Your task to perform on an android device: Go to sound settings Image 0: 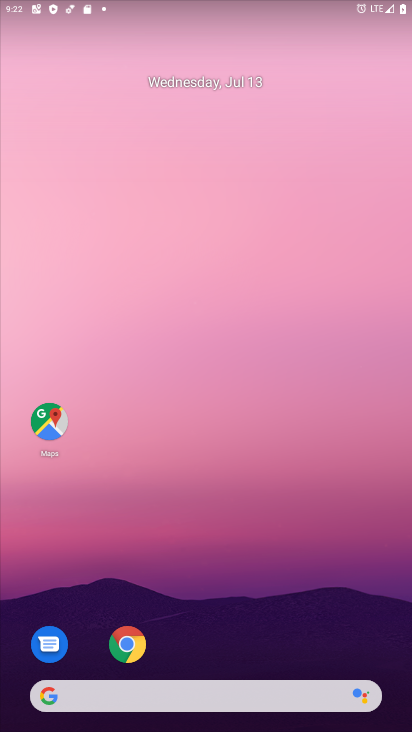
Step 0: drag from (180, 691) to (164, 206)
Your task to perform on an android device: Go to sound settings Image 1: 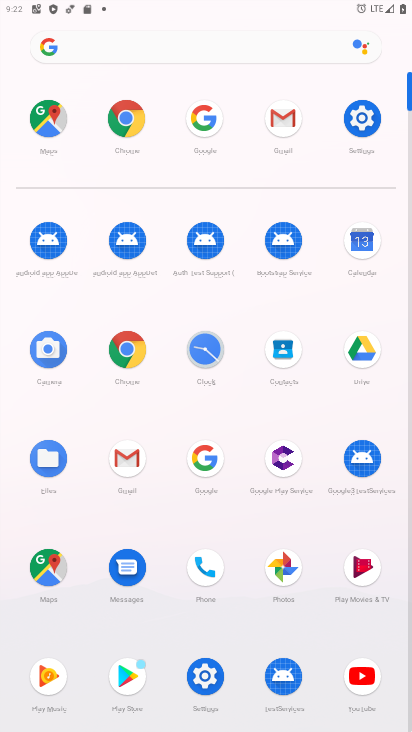
Step 1: click (360, 117)
Your task to perform on an android device: Go to sound settings Image 2: 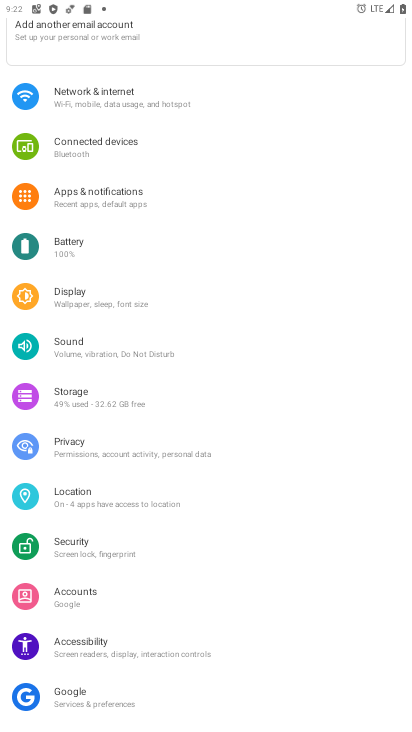
Step 2: click (79, 346)
Your task to perform on an android device: Go to sound settings Image 3: 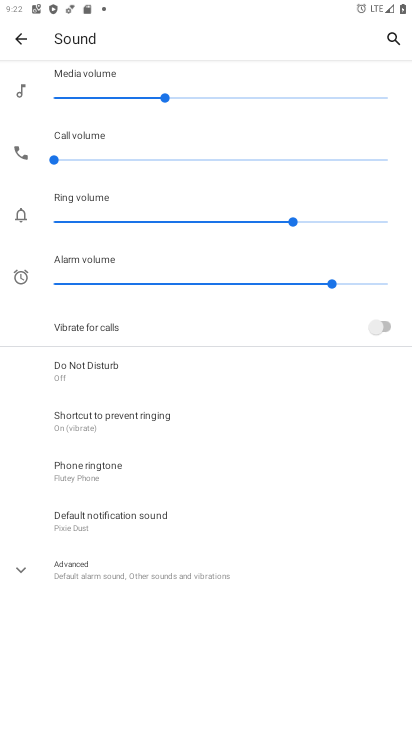
Step 3: task complete